Your task to perform on an android device: Open sound settings Image 0: 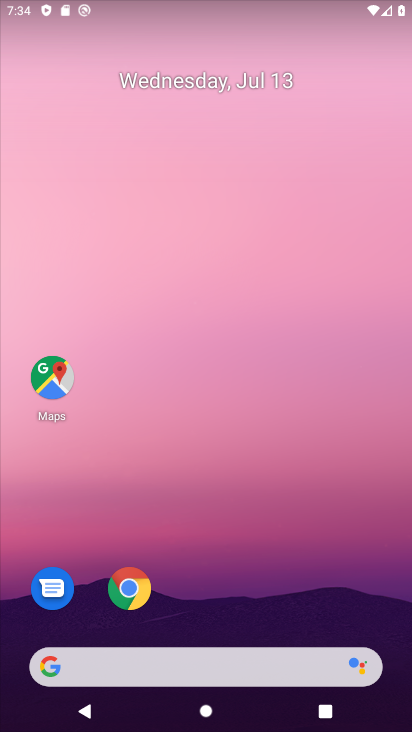
Step 0: drag from (150, 713) to (296, 0)
Your task to perform on an android device: Open sound settings Image 1: 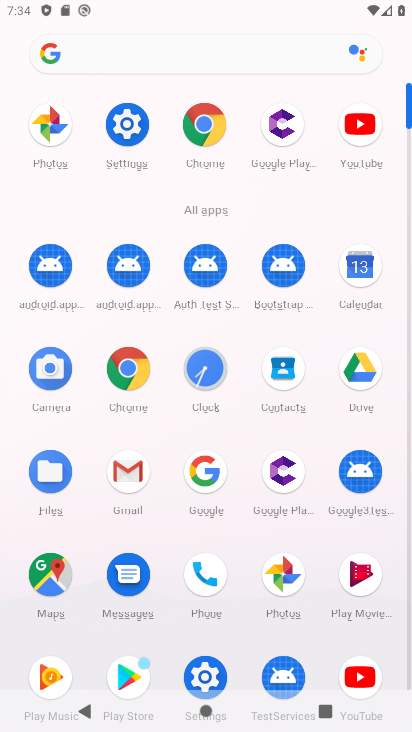
Step 1: click (131, 134)
Your task to perform on an android device: Open sound settings Image 2: 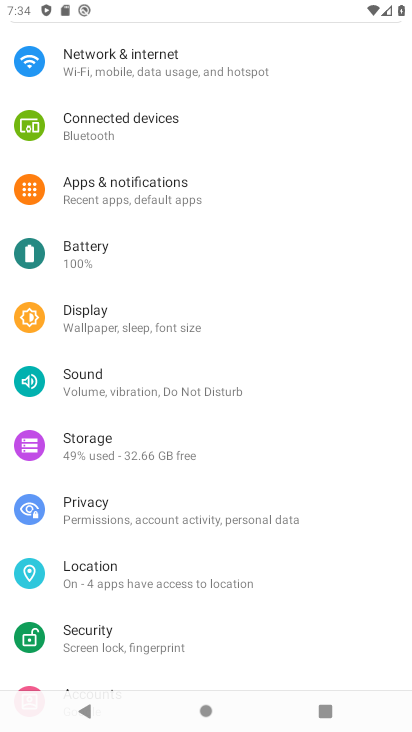
Step 2: click (117, 378)
Your task to perform on an android device: Open sound settings Image 3: 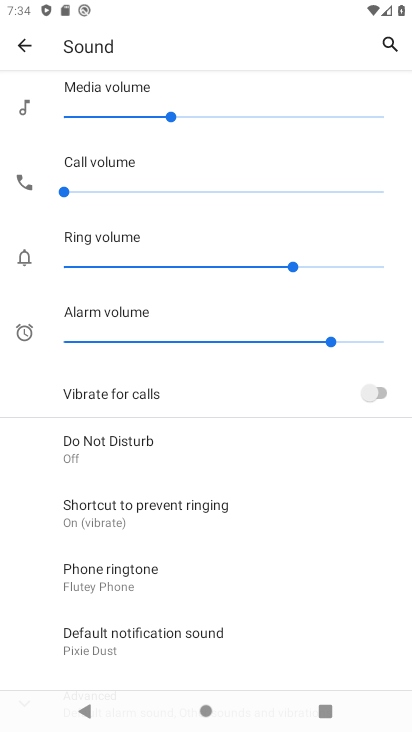
Step 3: task complete